Your task to perform on an android device: delete a single message in the gmail app Image 0: 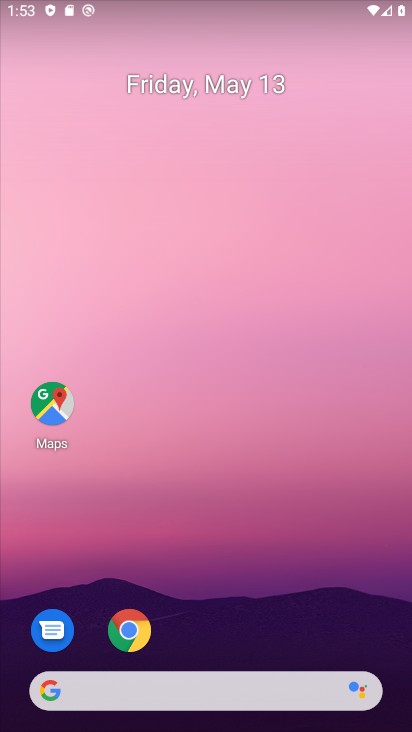
Step 0: drag from (258, 645) to (291, 291)
Your task to perform on an android device: delete a single message in the gmail app Image 1: 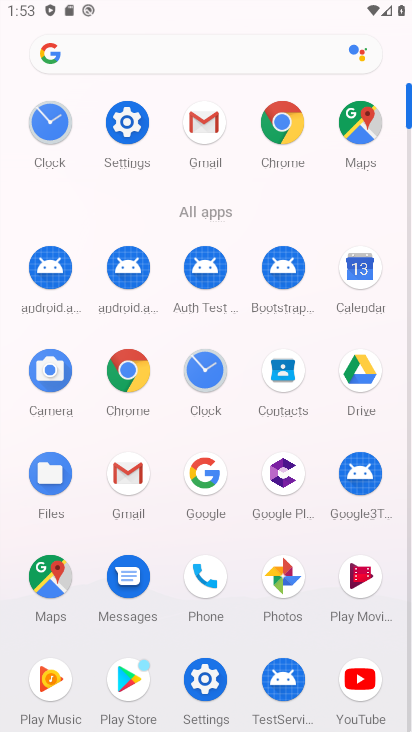
Step 1: click (131, 478)
Your task to perform on an android device: delete a single message in the gmail app Image 2: 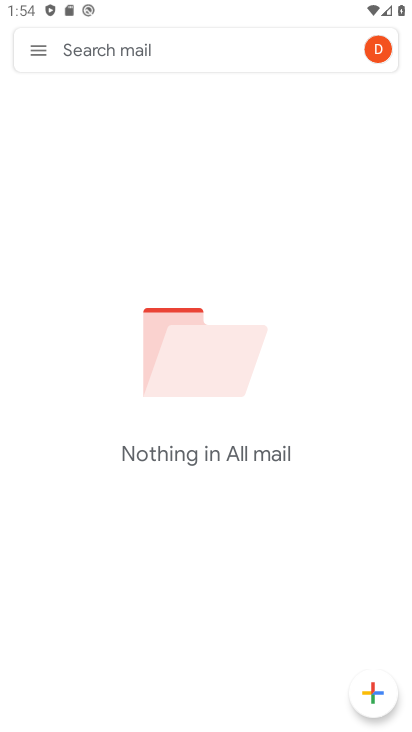
Step 2: task complete